Your task to perform on an android device: turn notification dots on Image 0: 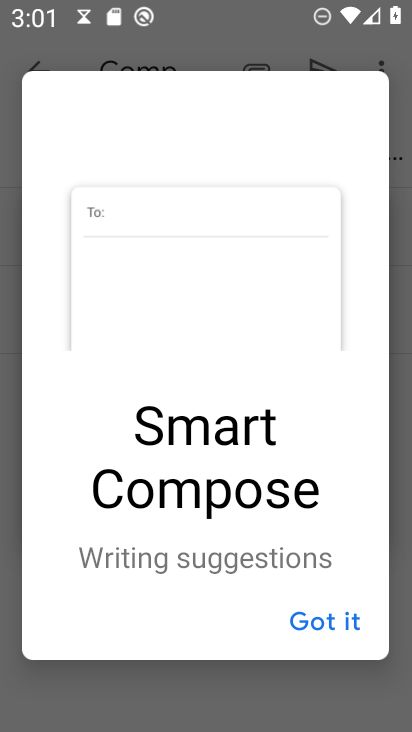
Step 0: click (330, 614)
Your task to perform on an android device: turn notification dots on Image 1: 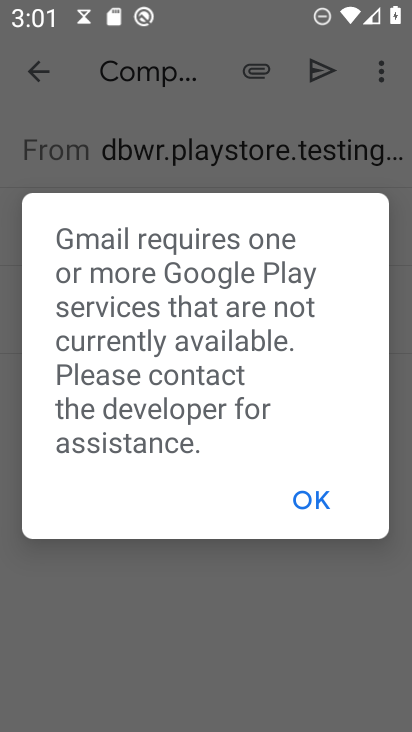
Step 1: click (304, 495)
Your task to perform on an android device: turn notification dots on Image 2: 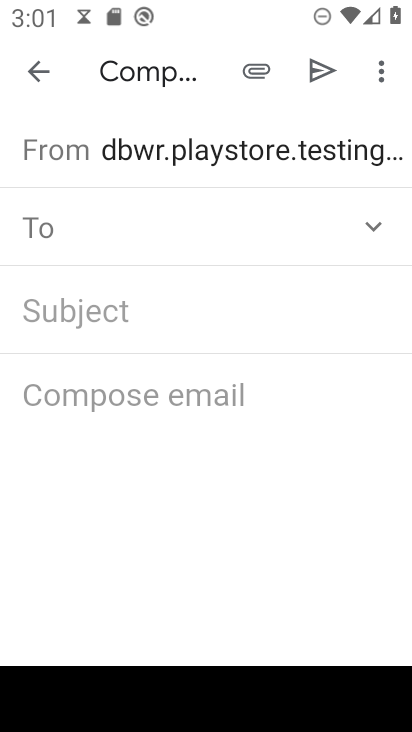
Step 2: press back button
Your task to perform on an android device: turn notification dots on Image 3: 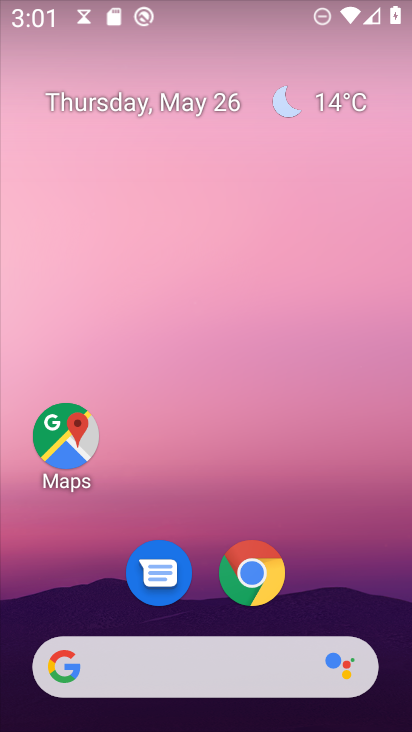
Step 3: drag from (369, 540) to (275, 30)
Your task to perform on an android device: turn notification dots on Image 4: 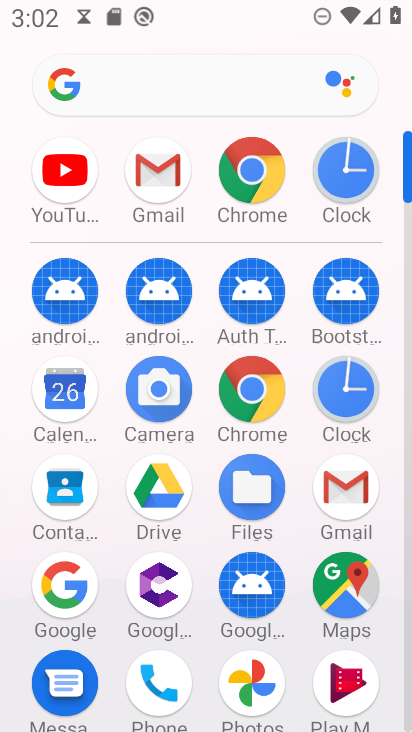
Step 4: drag from (13, 569) to (16, 233)
Your task to perform on an android device: turn notification dots on Image 5: 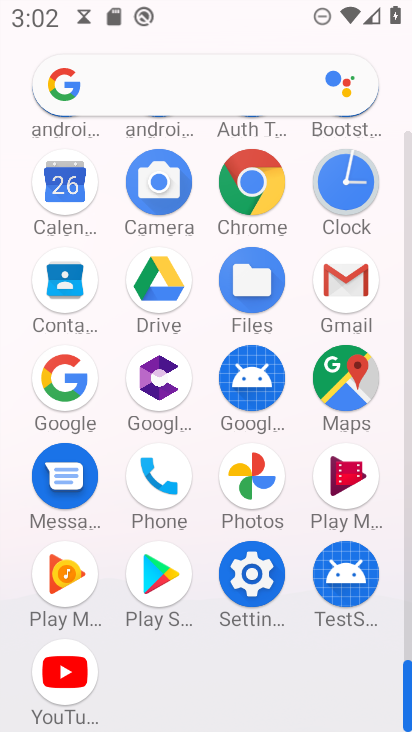
Step 5: click (250, 565)
Your task to perform on an android device: turn notification dots on Image 6: 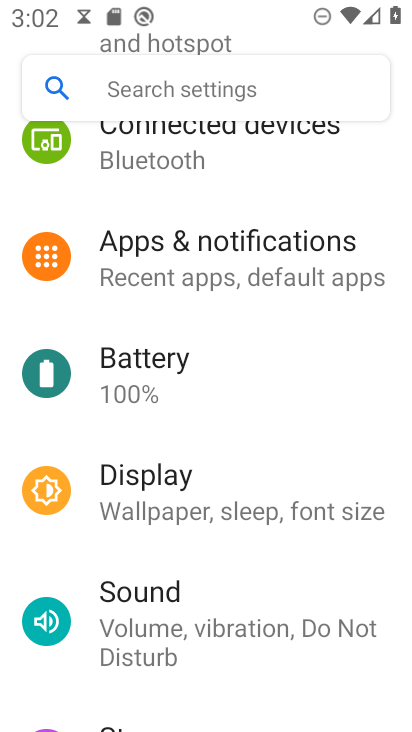
Step 6: drag from (269, 589) to (262, 200)
Your task to perform on an android device: turn notification dots on Image 7: 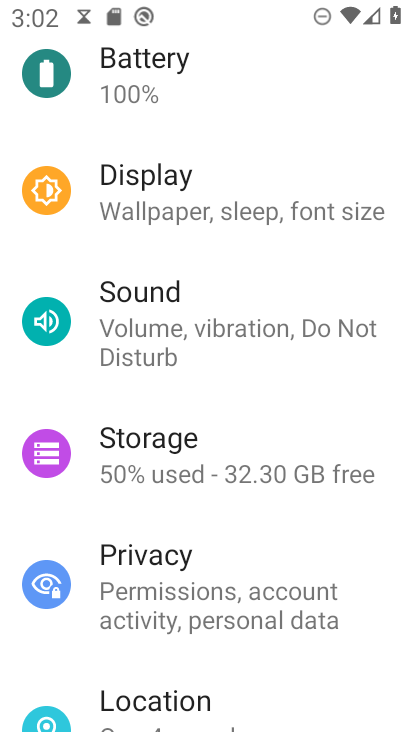
Step 7: drag from (236, 531) to (227, 184)
Your task to perform on an android device: turn notification dots on Image 8: 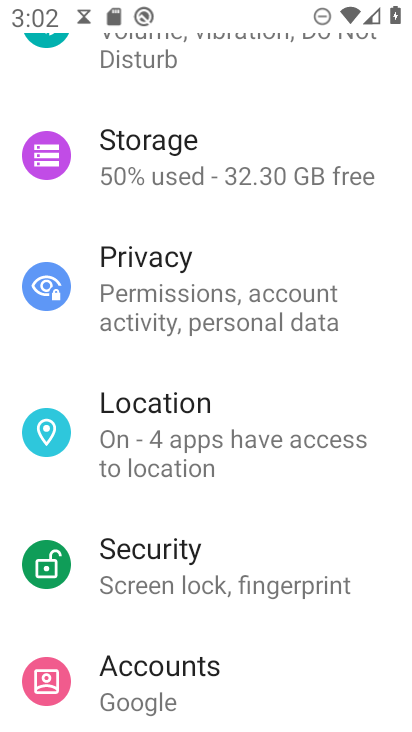
Step 8: drag from (221, 505) to (235, 157)
Your task to perform on an android device: turn notification dots on Image 9: 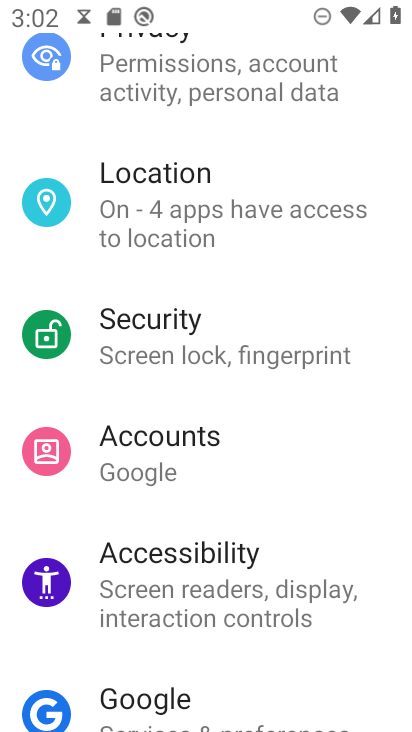
Step 9: drag from (271, 641) to (283, 174)
Your task to perform on an android device: turn notification dots on Image 10: 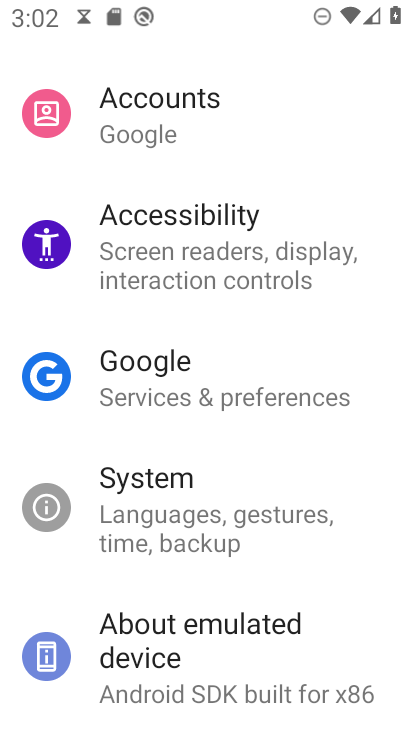
Step 10: drag from (242, 569) to (248, 189)
Your task to perform on an android device: turn notification dots on Image 11: 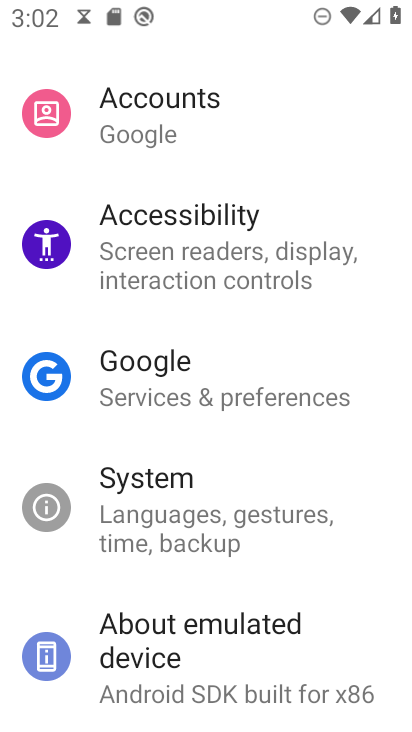
Step 11: drag from (248, 195) to (202, 625)
Your task to perform on an android device: turn notification dots on Image 12: 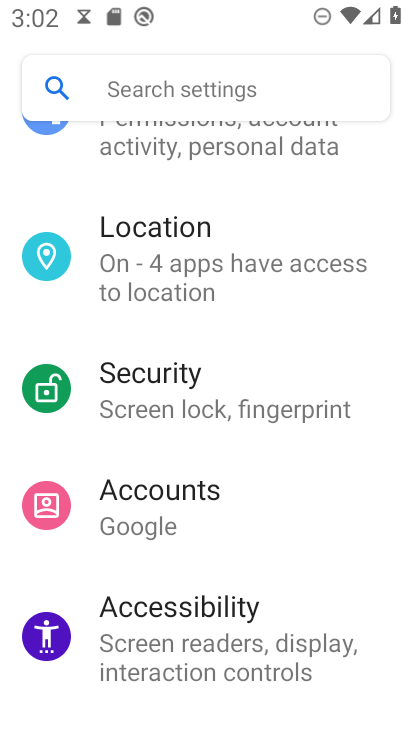
Step 12: drag from (255, 254) to (243, 579)
Your task to perform on an android device: turn notification dots on Image 13: 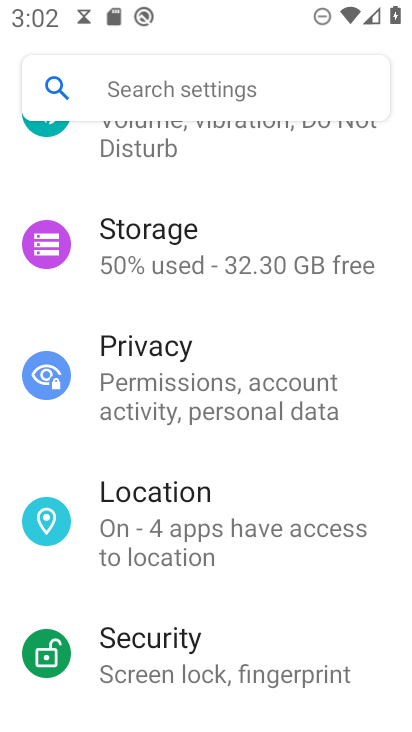
Step 13: drag from (283, 600) to (311, 217)
Your task to perform on an android device: turn notification dots on Image 14: 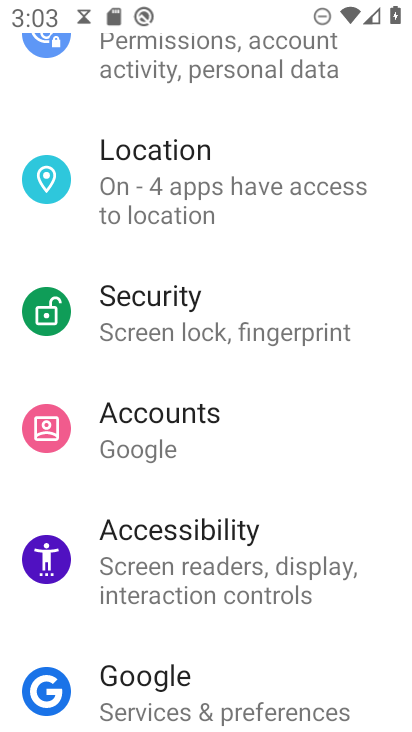
Step 14: drag from (273, 229) to (273, 613)
Your task to perform on an android device: turn notification dots on Image 15: 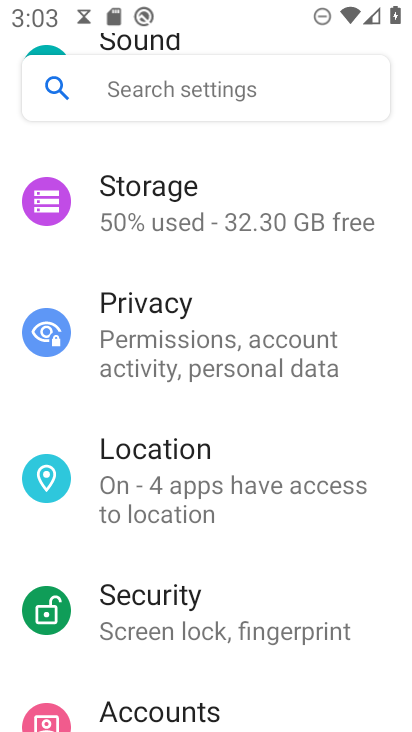
Step 15: drag from (297, 290) to (293, 603)
Your task to perform on an android device: turn notification dots on Image 16: 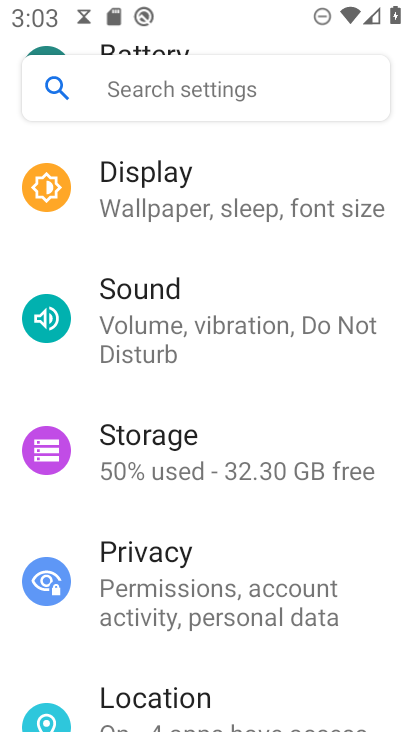
Step 16: drag from (302, 295) to (295, 597)
Your task to perform on an android device: turn notification dots on Image 17: 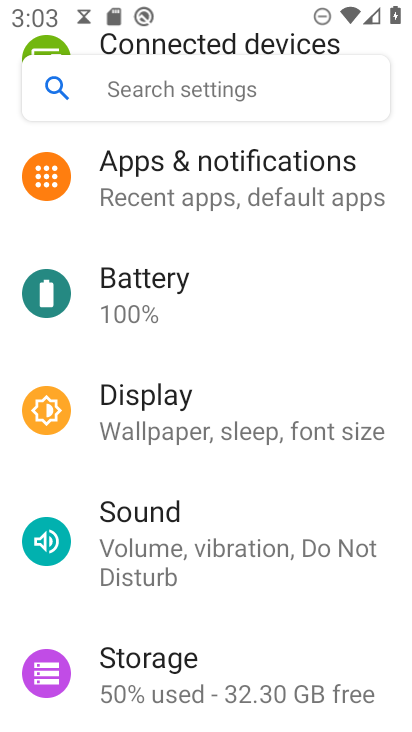
Step 17: click (289, 174)
Your task to perform on an android device: turn notification dots on Image 18: 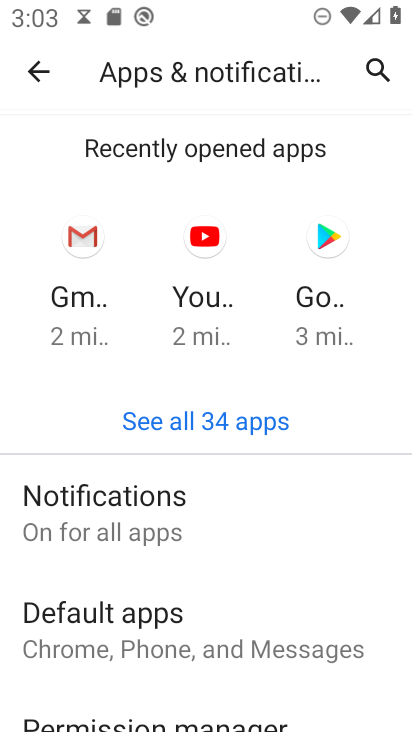
Step 18: click (163, 491)
Your task to perform on an android device: turn notification dots on Image 19: 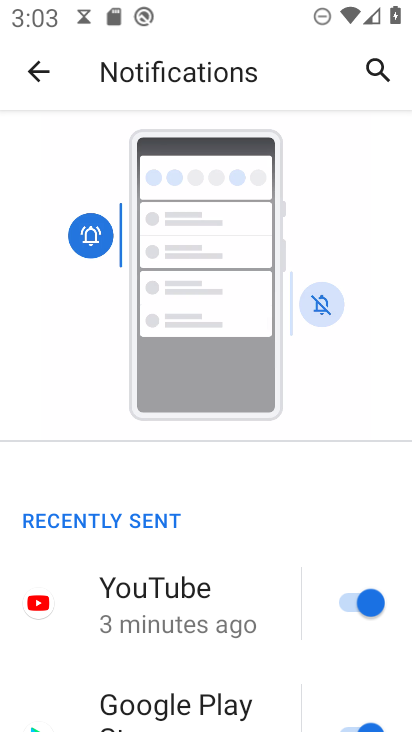
Step 19: drag from (204, 618) to (208, 120)
Your task to perform on an android device: turn notification dots on Image 20: 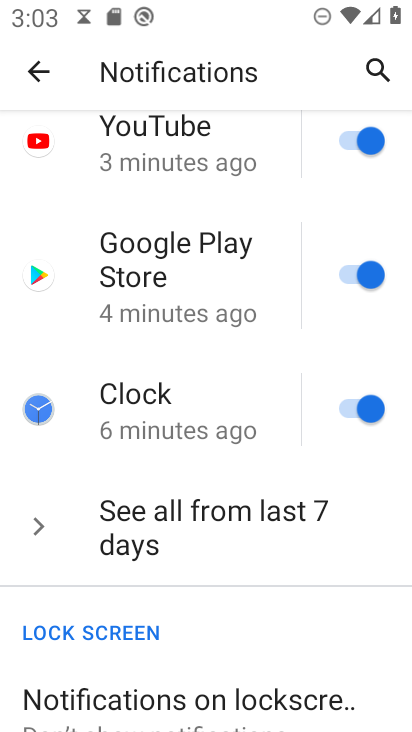
Step 20: drag from (214, 511) to (214, 163)
Your task to perform on an android device: turn notification dots on Image 21: 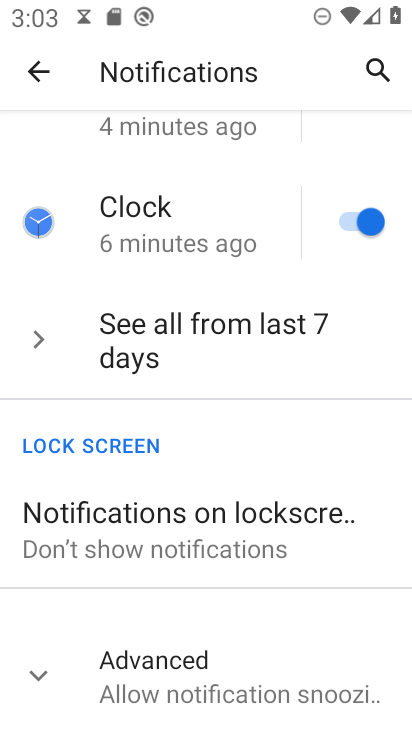
Step 21: click (189, 676)
Your task to perform on an android device: turn notification dots on Image 22: 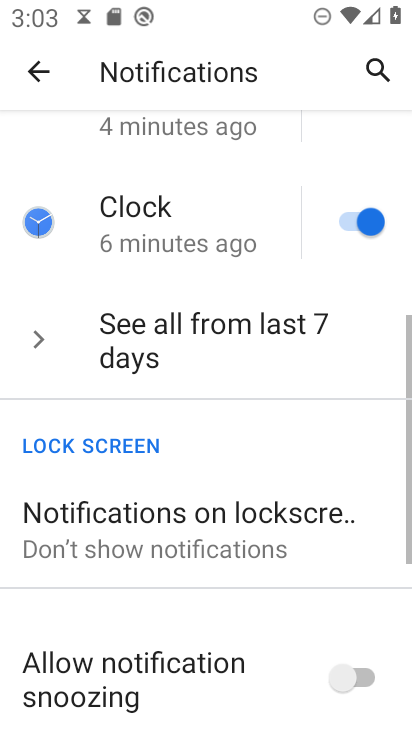
Step 22: task complete